Your task to perform on an android device: Open Youtube and go to "Your channel" Image 0: 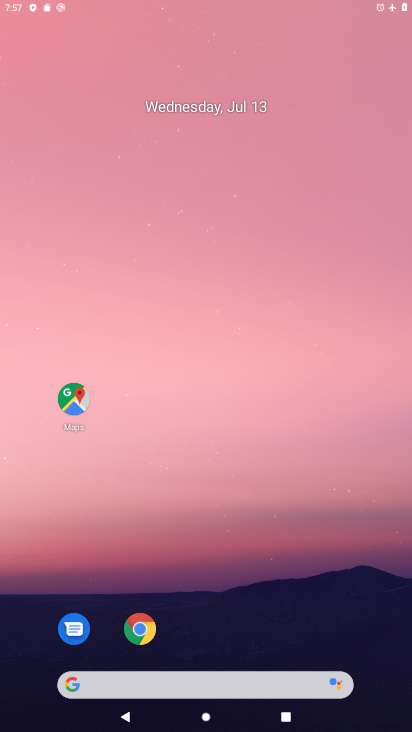
Step 0: drag from (36, 677) to (186, 72)
Your task to perform on an android device: Open Youtube and go to "Your channel" Image 1: 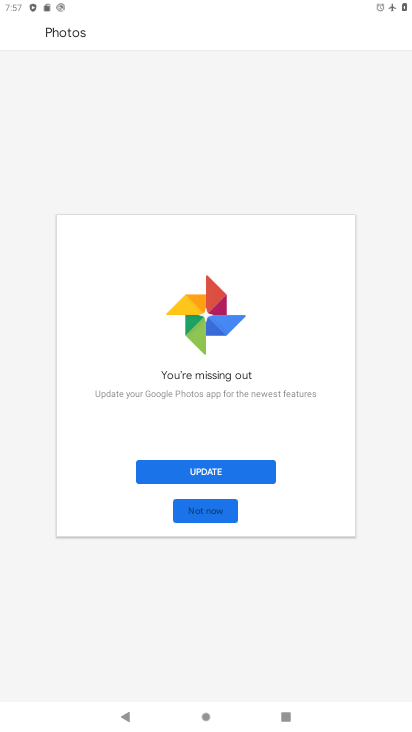
Step 1: press home button
Your task to perform on an android device: Open Youtube and go to "Your channel" Image 2: 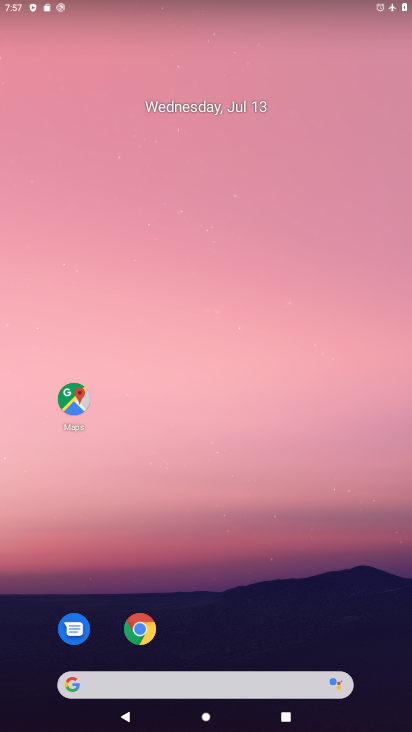
Step 2: drag from (37, 689) to (206, 217)
Your task to perform on an android device: Open Youtube and go to "Your channel" Image 3: 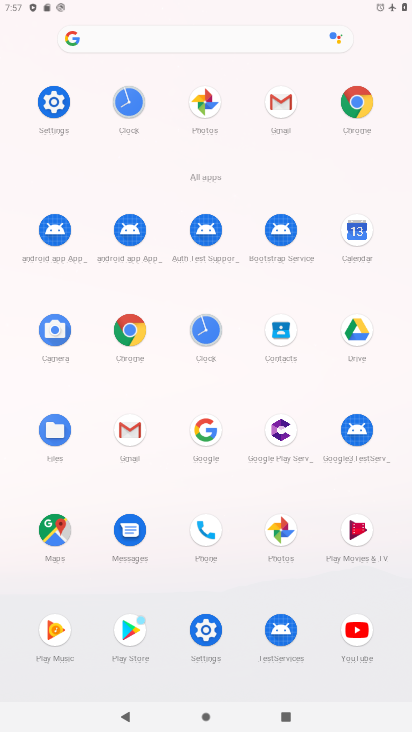
Step 3: click (366, 639)
Your task to perform on an android device: Open Youtube and go to "Your channel" Image 4: 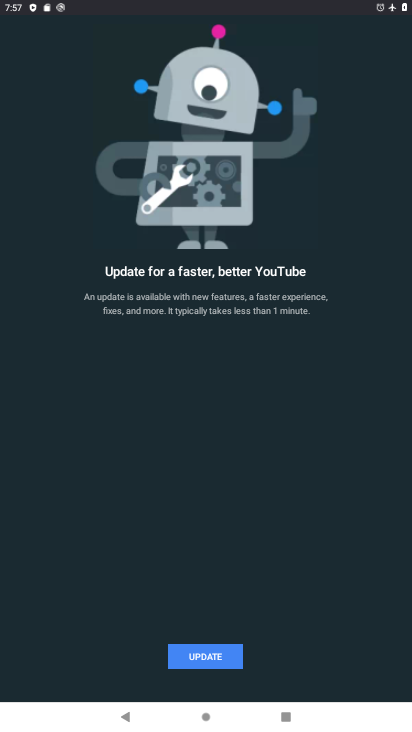
Step 4: click (205, 658)
Your task to perform on an android device: Open Youtube and go to "Your channel" Image 5: 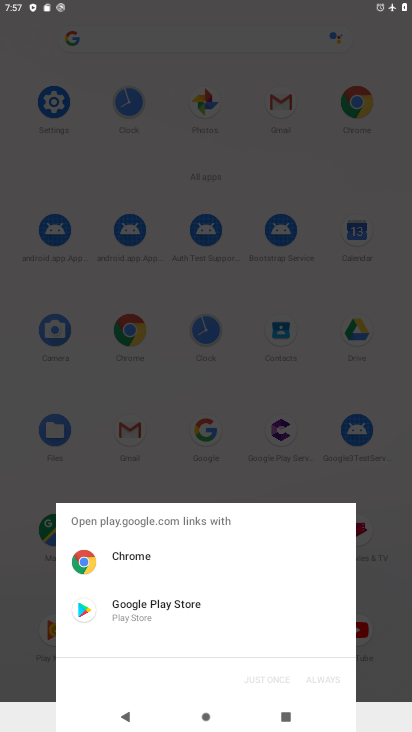
Step 5: click (179, 613)
Your task to perform on an android device: Open Youtube and go to "Your channel" Image 6: 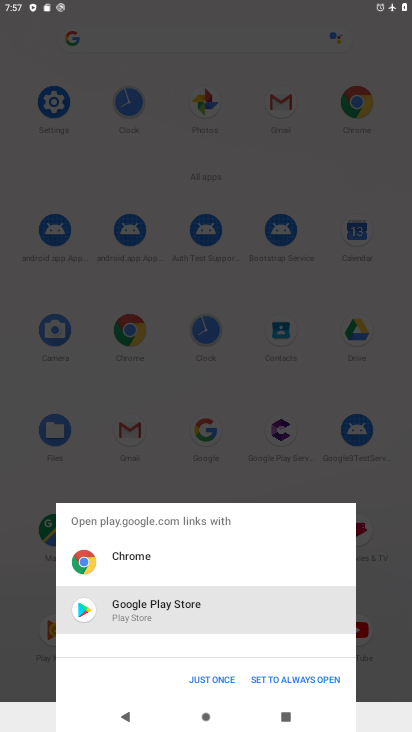
Step 6: click (220, 677)
Your task to perform on an android device: Open Youtube and go to "Your channel" Image 7: 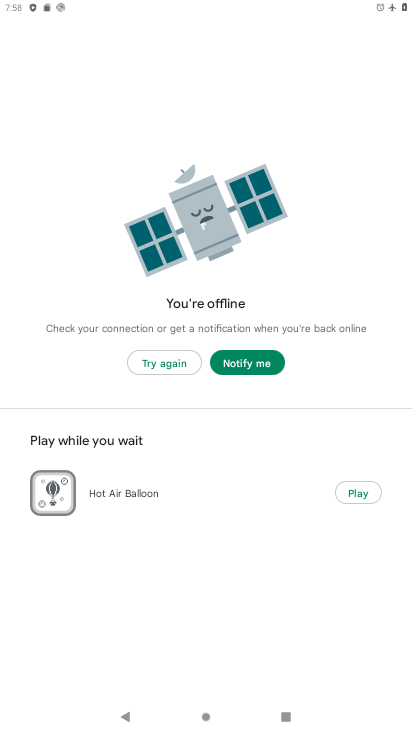
Step 7: click (179, 357)
Your task to perform on an android device: Open Youtube and go to "Your channel" Image 8: 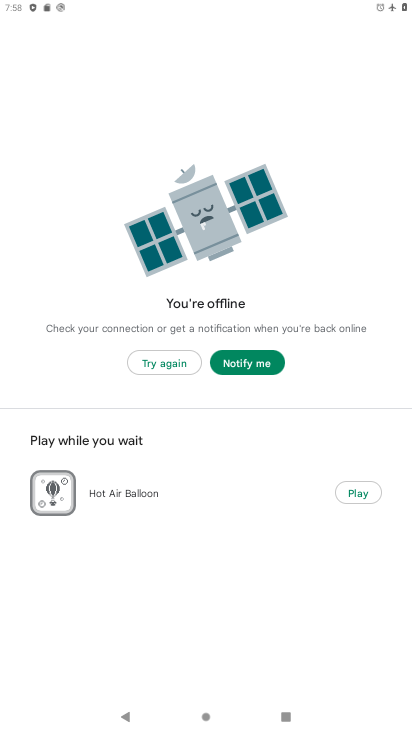
Step 8: task complete